Your task to perform on an android device: turn off picture-in-picture Image 0: 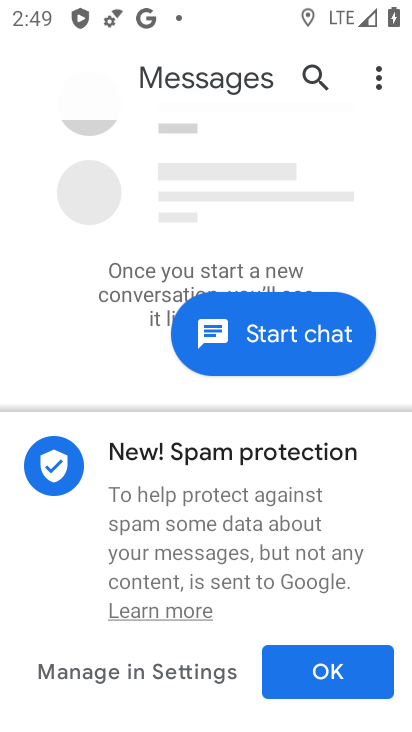
Step 0: press home button
Your task to perform on an android device: turn off picture-in-picture Image 1: 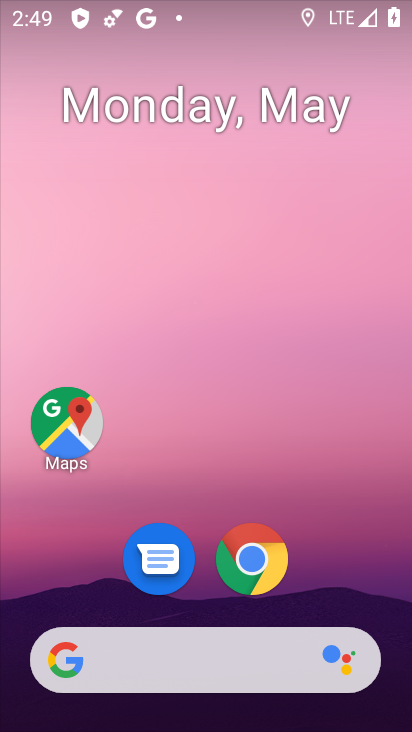
Step 1: click (256, 565)
Your task to perform on an android device: turn off picture-in-picture Image 2: 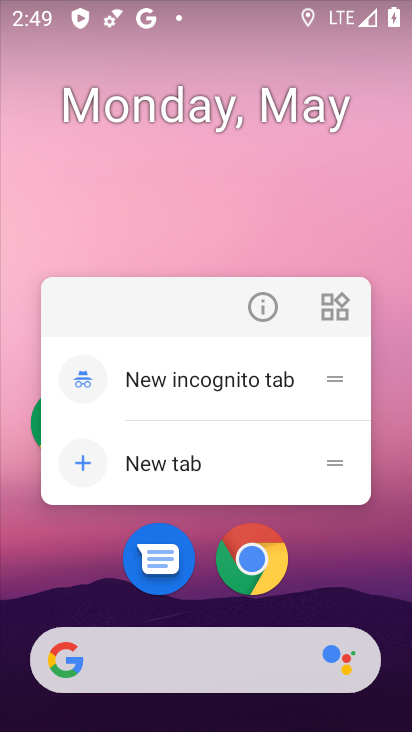
Step 2: click (254, 304)
Your task to perform on an android device: turn off picture-in-picture Image 3: 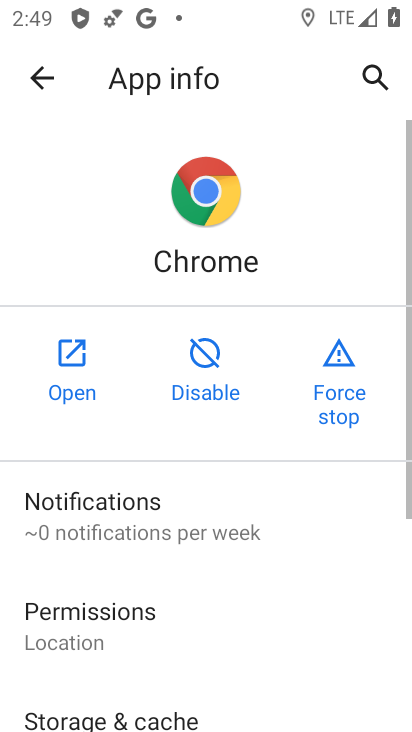
Step 3: drag from (159, 652) to (149, 289)
Your task to perform on an android device: turn off picture-in-picture Image 4: 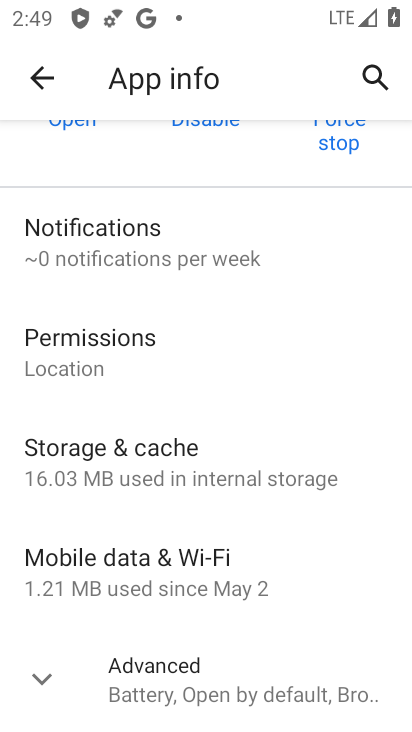
Step 4: click (189, 667)
Your task to perform on an android device: turn off picture-in-picture Image 5: 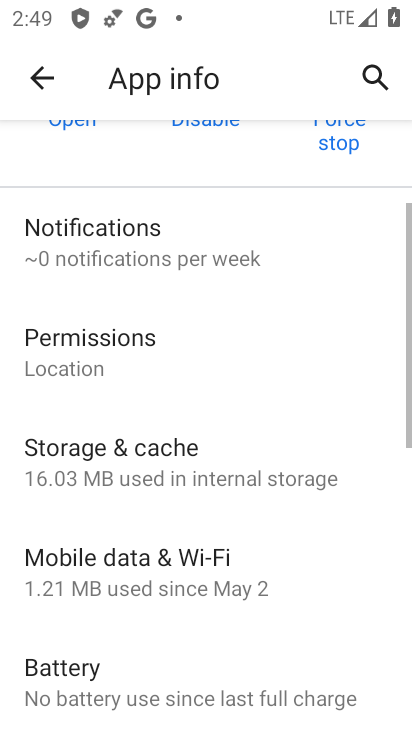
Step 5: drag from (177, 686) to (184, 277)
Your task to perform on an android device: turn off picture-in-picture Image 6: 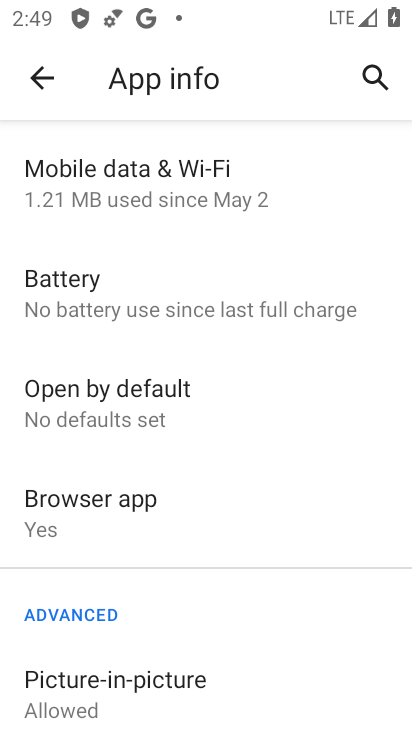
Step 6: drag from (133, 628) to (152, 226)
Your task to perform on an android device: turn off picture-in-picture Image 7: 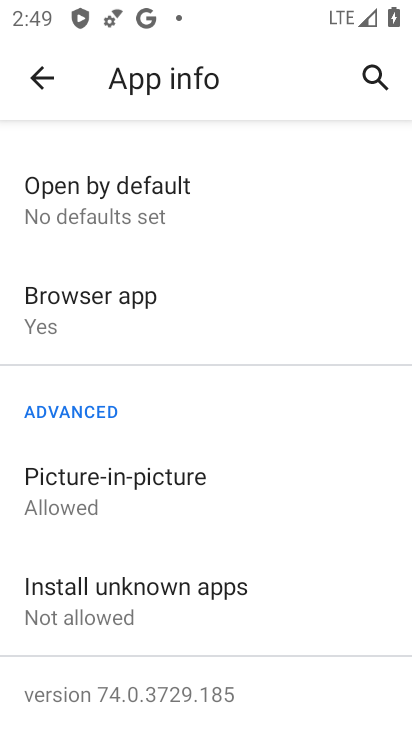
Step 7: click (104, 480)
Your task to perform on an android device: turn off picture-in-picture Image 8: 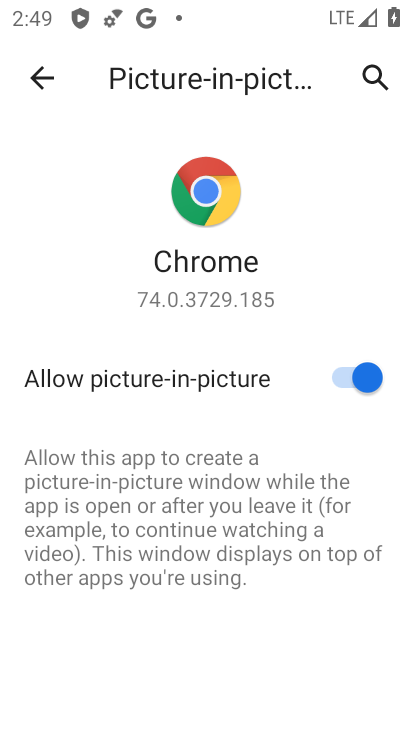
Step 8: click (369, 385)
Your task to perform on an android device: turn off picture-in-picture Image 9: 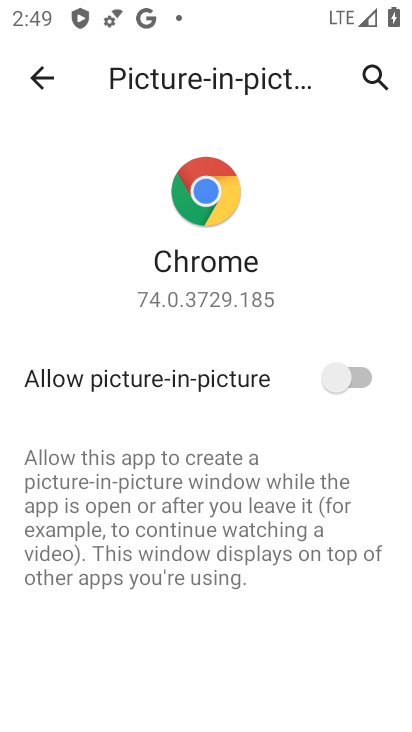
Step 9: task complete